Your task to perform on an android device: Open Amazon Image 0: 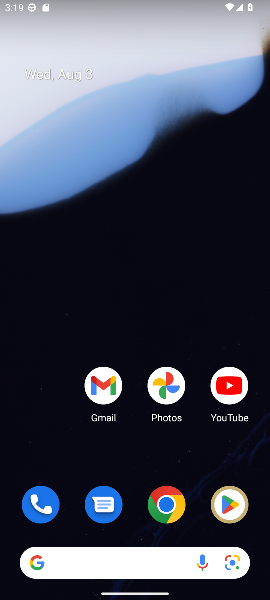
Step 0: click (167, 506)
Your task to perform on an android device: Open Amazon Image 1: 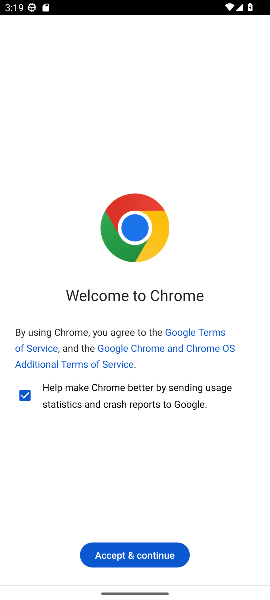
Step 1: click (172, 546)
Your task to perform on an android device: Open Amazon Image 2: 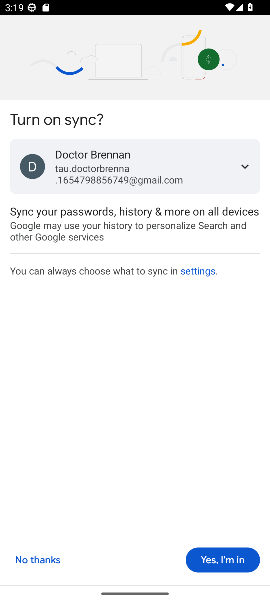
Step 2: click (213, 556)
Your task to perform on an android device: Open Amazon Image 3: 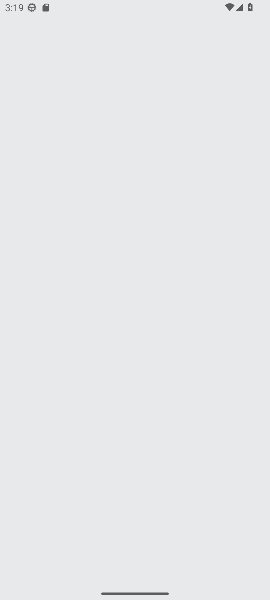
Step 3: click (215, 559)
Your task to perform on an android device: Open Amazon Image 4: 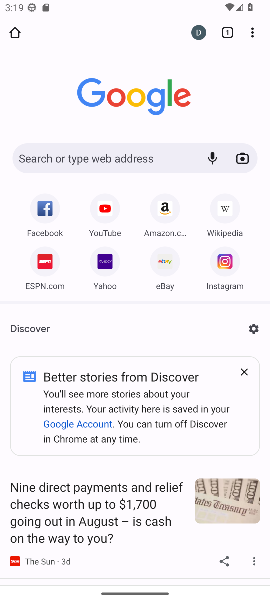
Step 4: click (174, 211)
Your task to perform on an android device: Open Amazon Image 5: 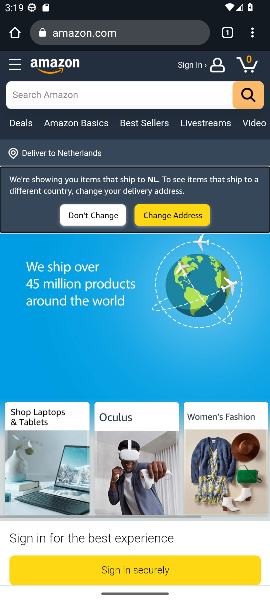
Step 5: task complete